Your task to perform on an android device: Open Maps and search for coffee Image 0: 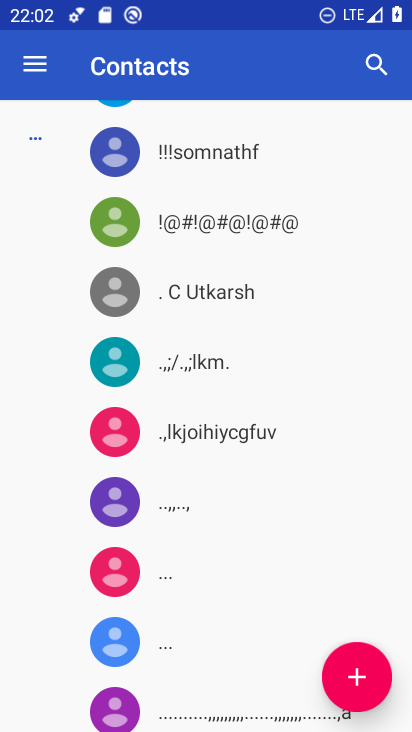
Step 0: press home button
Your task to perform on an android device: Open Maps and search for coffee Image 1: 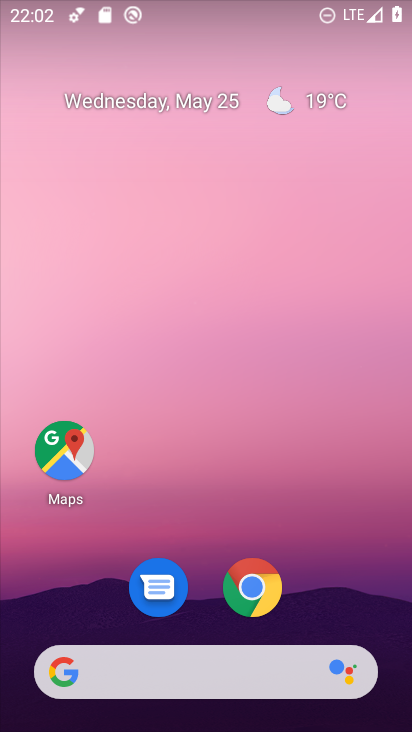
Step 1: click (65, 449)
Your task to perform on an android device: Open Maps and search for coffee Image 2: 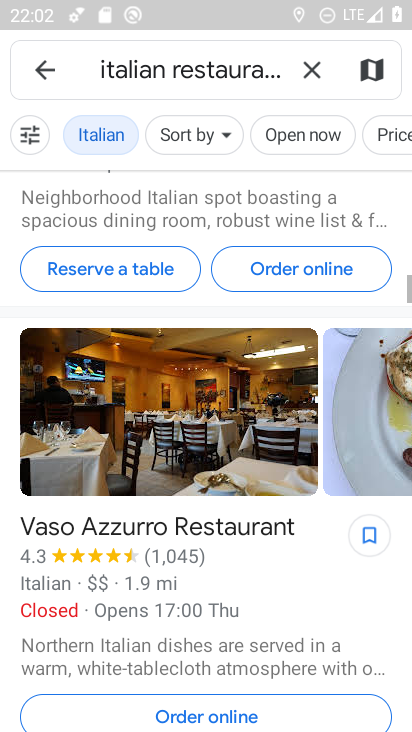
Step 2: click (315, 68)
Your task to perform on an android device: Open Maps and search for coffee Image 3: 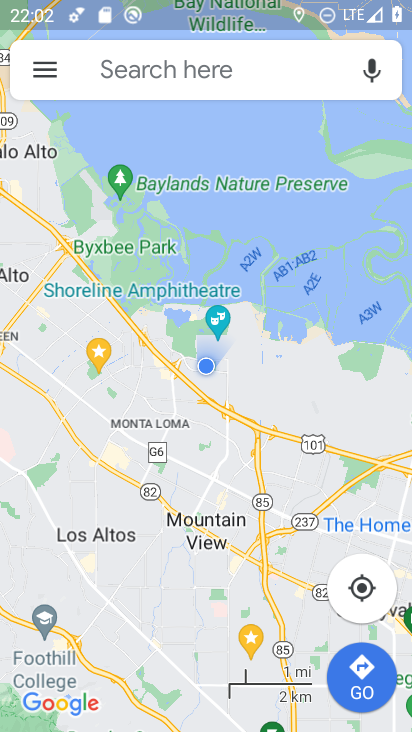
Step 3: click (139, 69)
Your task to perform on an android device: Open Maps and search for coffee Image 4: 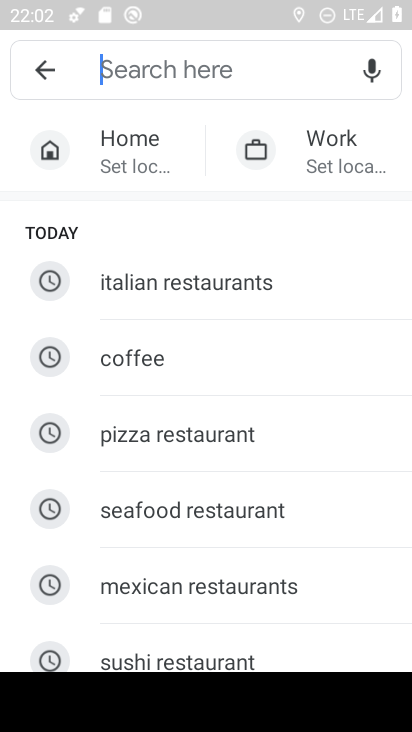
Step 4: type "coffee"
Your task to perform on an android device: Open Maps and search for coffee Image 5: 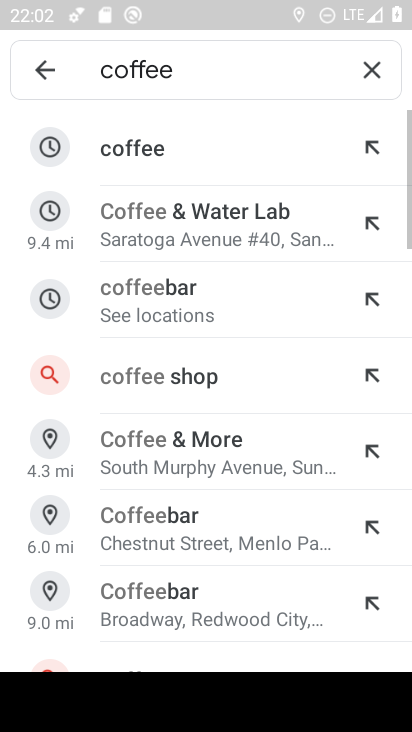
Step 5: click (134, 158)
Your task to perform on an android device: Open Maps and search for coffee Image 6: 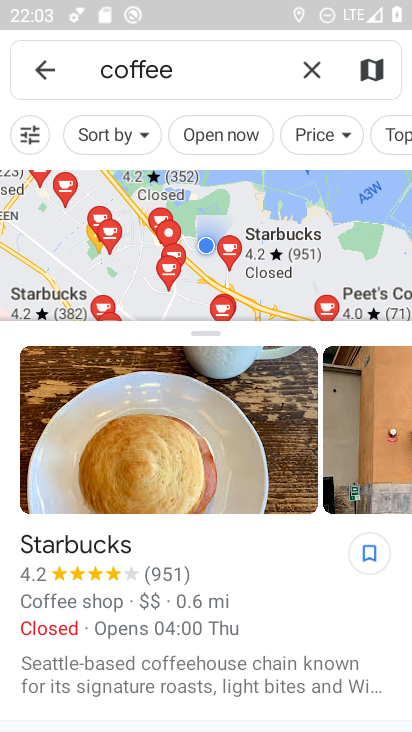
Step 6: task complete